Your task to perform on an android device: delete the emails in spam in the gmail app Image 0: 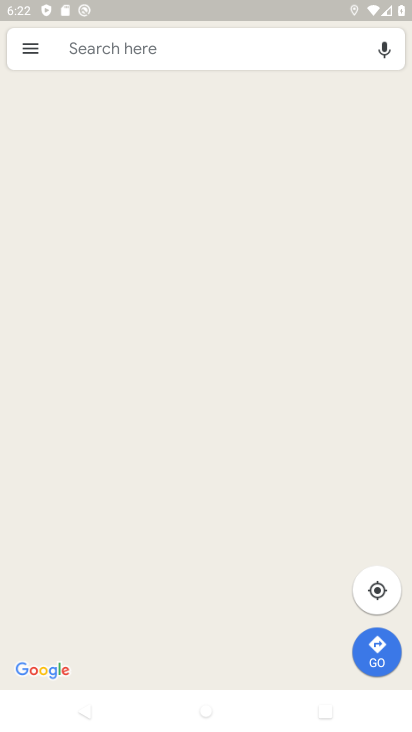
Step 0: drag from (194, 615) to (192, 242)
Your task to perform on an android device: delete the emails in spam in the gmail app Image 1: 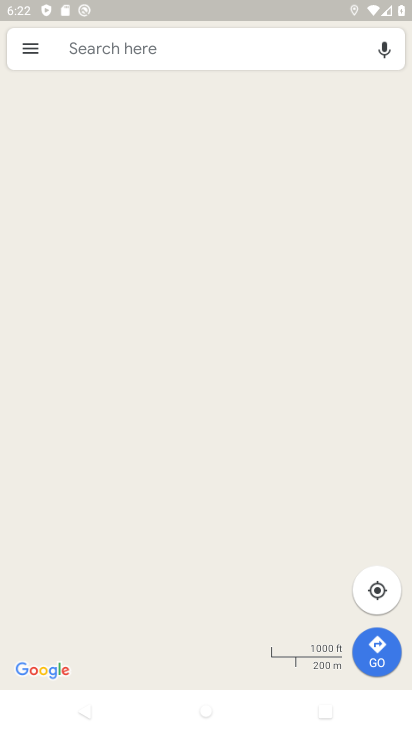
Step 1: press home button
Your task to perform on an android device: delete the emails in spam in the gmail app Image 2: 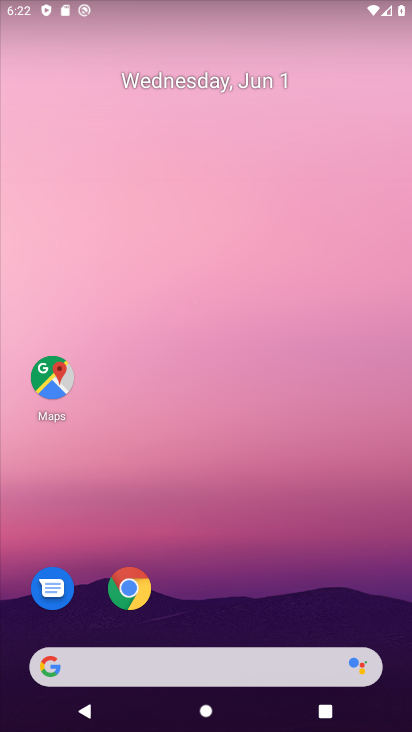
Step 2: drag from (208, 611) to (207, 235)
Your task to perform on an android device: delete the emails in spam in the gmail app Image 3: 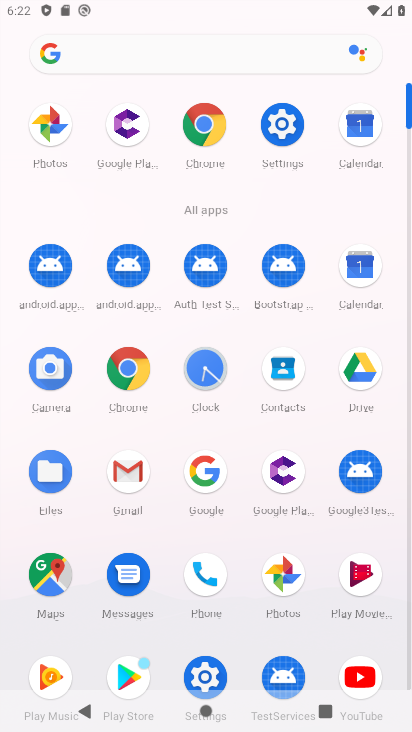
Step 3: click (123, 473)
Your task to perform on an android device: delete the emails in spam in the gmail app Image 4: 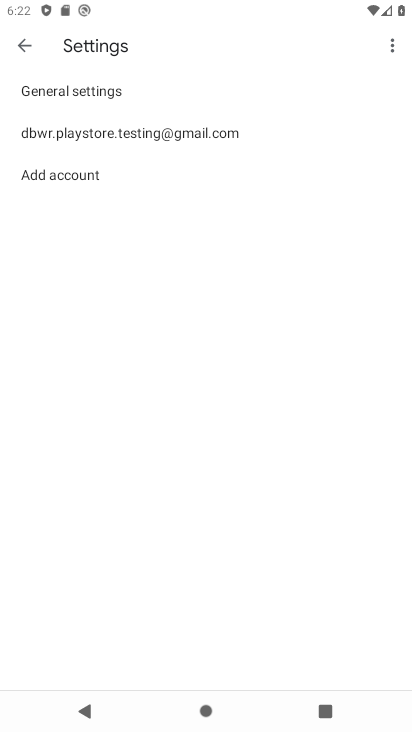
Step 4: click (18, 44)
Your task to perform on an android device: delete the emails in spam in the gmail app Image 5: 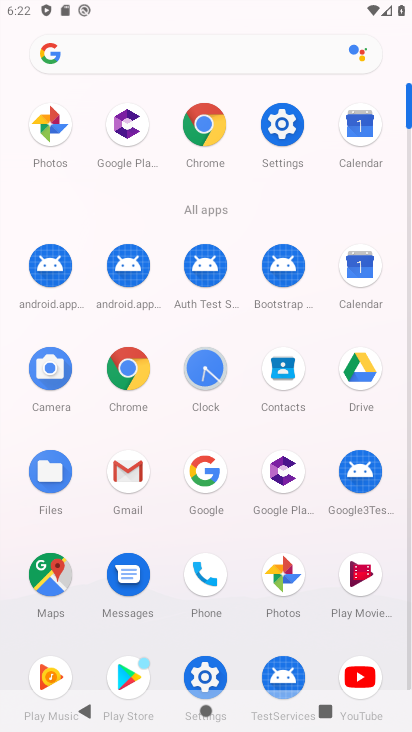
Step 5: click (127, 475)
Your task to perform on an android device: delete the emails in spam in the gmail app Image 6: 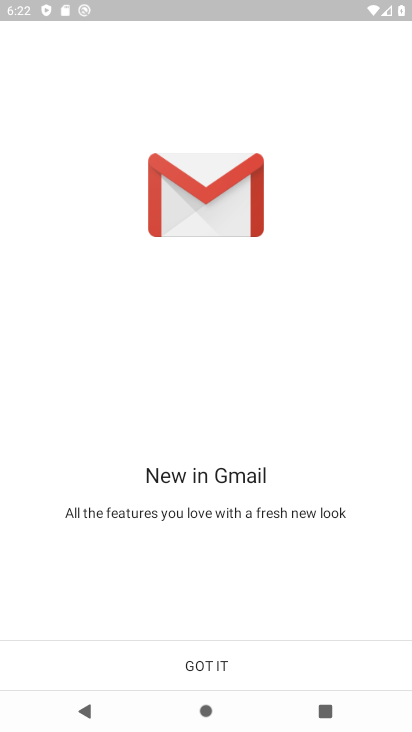
Step 6: click (196, 670)
Your task to perform on an android device: delete the emails in spam in the gmail app Image 7: 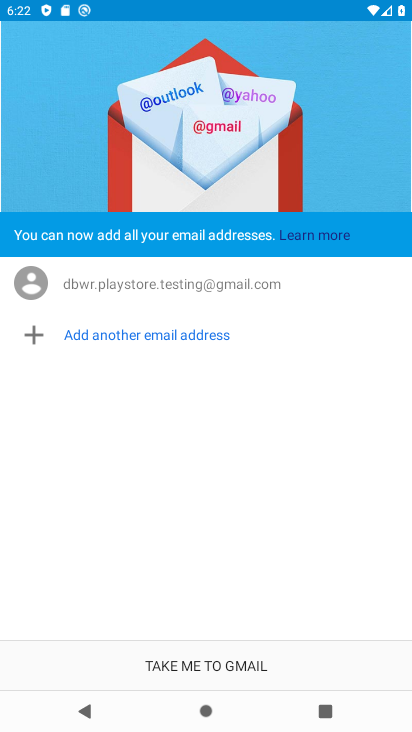
Step 7: click (226, 662)
Your task to perform on an android device: delete the emails in spam in the gmail app Image 8: 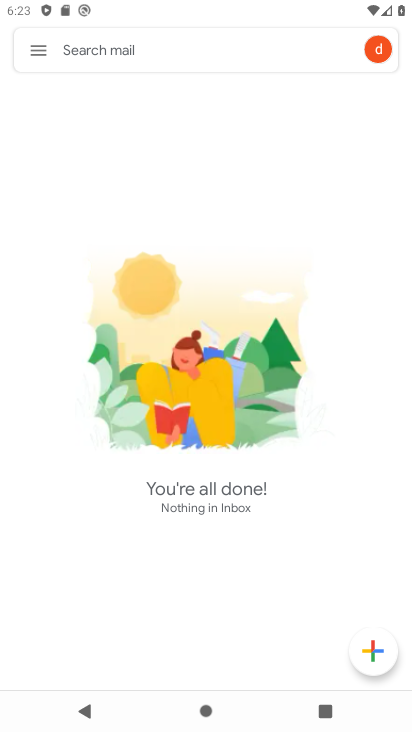
Step 8: click (30, 53)
Your task to perform on an android device: delete the emails in spam in the gmail app Image 9: 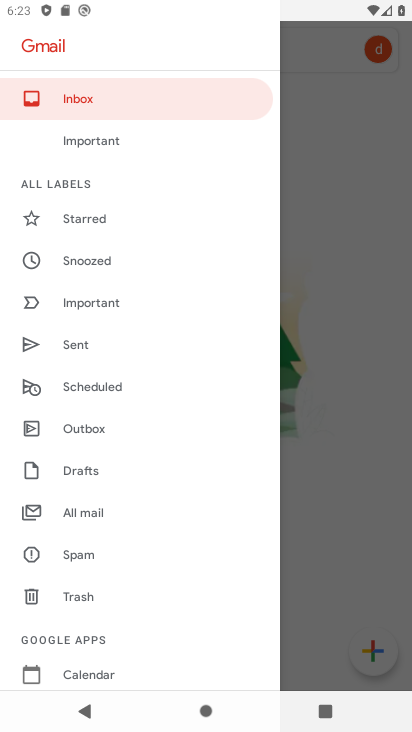
Step 9: click (83, 564)
Your task to perform on an android device: delete the emails in spam in the gmail app Image 10: 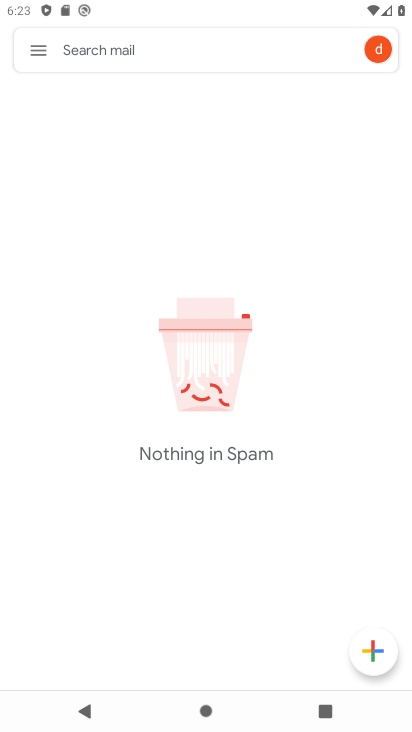
Step 10: task complete